Your task to perform on an android device: Open Youtube and go to "Your channel" Image 0: 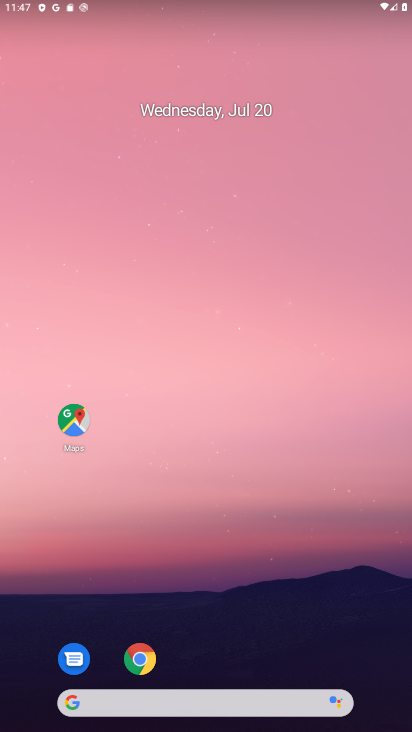
Step 0: drag from (205, 631) to (182, 216)
Your task to perform on an android device: Open Youtube and go to "Your channel" Image 1: 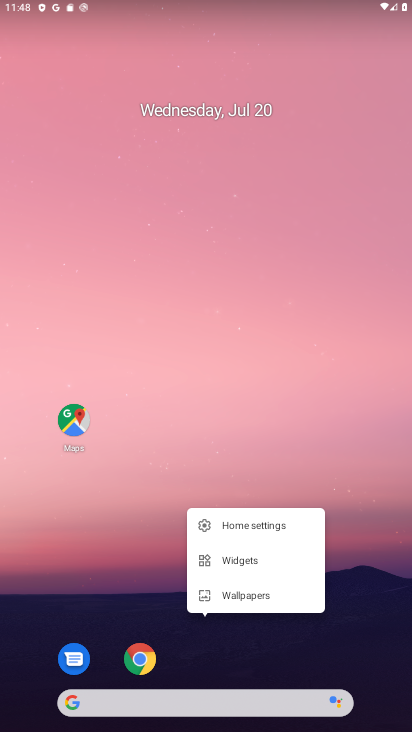
Step 1: drag from (213, 674) to (213, 55)
Your task to perform on an android device: Open Youtube and go to "Your channel" Image 2: 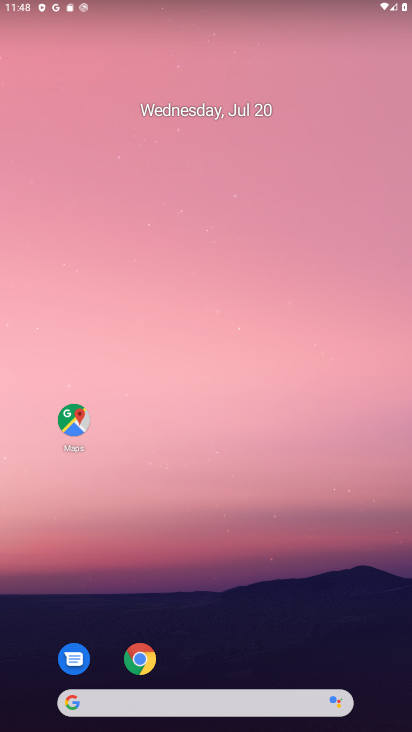
Step 2: drag from (210, 642) to (137, 32)
Your task to perform on an android device: Open Youtube and go to "Your channel" Image 3: 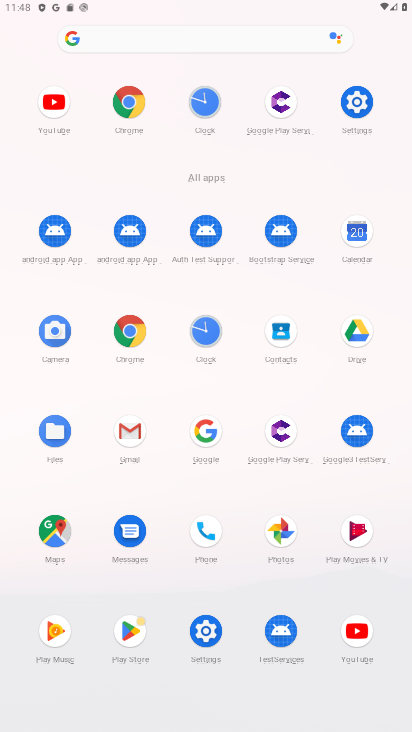
Step 3: click (355, 630)
Your task to perform on an android device: Open Youtube and go to "Your channel" Image 4: 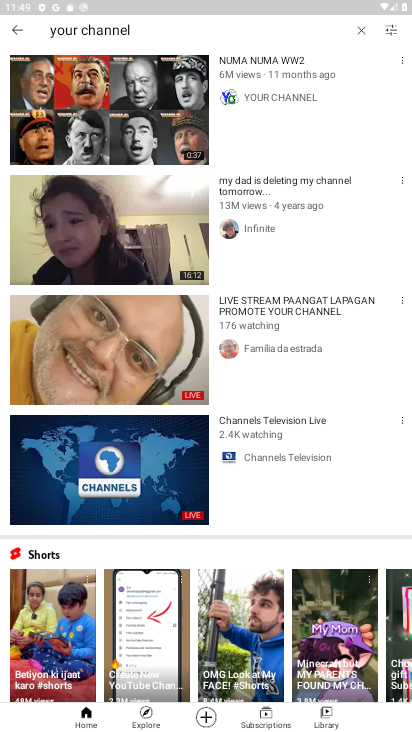
Step 4: task complete